Your task to perform on an android device: Search for vegetarian restaurants on Maps Image 0: 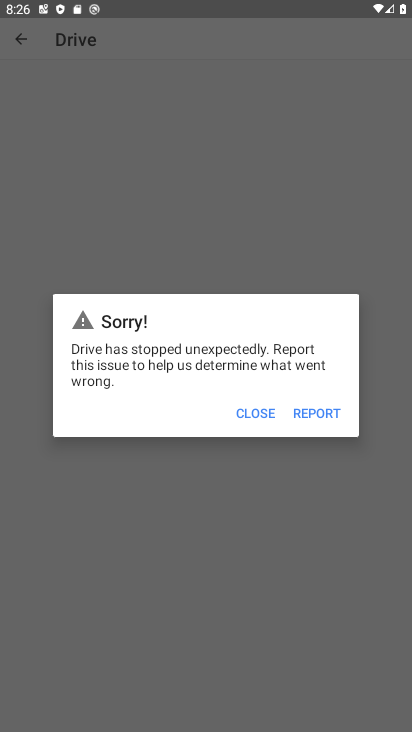
Step 0: press home button
Your task to perform on an android device: Search for vegetarian restaurants on Maps Image 1: 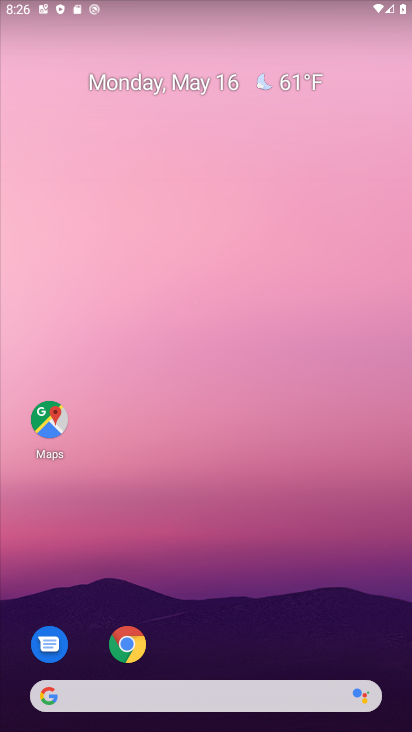
Step 1: click (49, 418)
Your task to perform on an android device: Search for vegetarian restaurants on Maps Image 2: 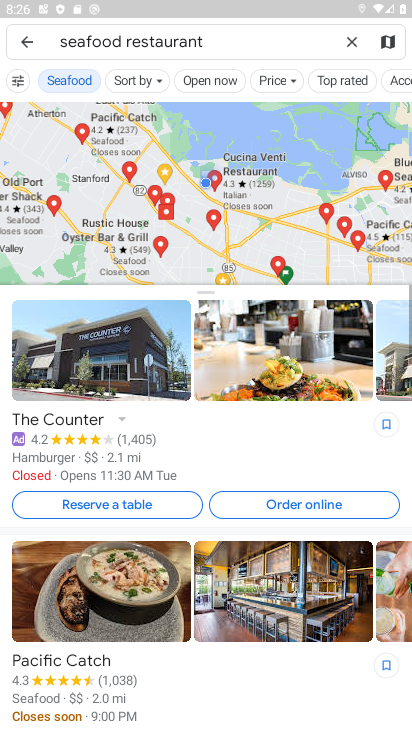
Step 2: click (349, 44)
Your task to perform on an android device: Search for vegetarian restaurants on Maps Image 3: 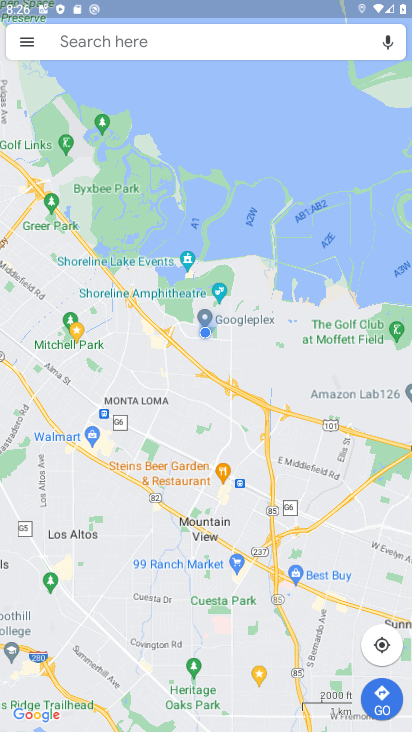
Step 3: click (196, 39)
Your task to perform on an android device: Search for vegetarian restaurants on Maps Image 4: 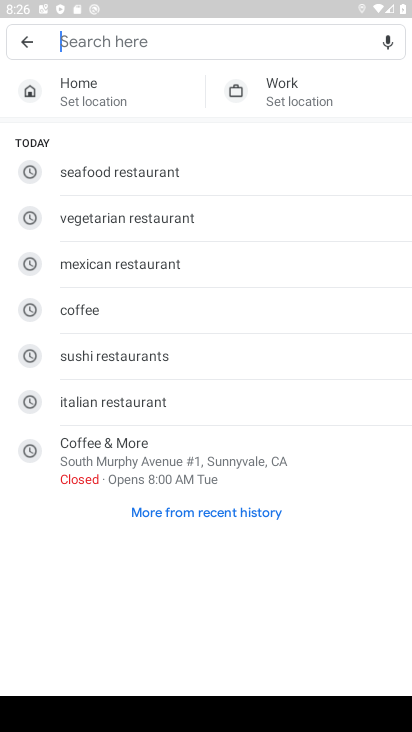
Step 4: click (142, 221)
Your task to perform on an android device: Search for vegetarian restaurants on Maps Image 5: 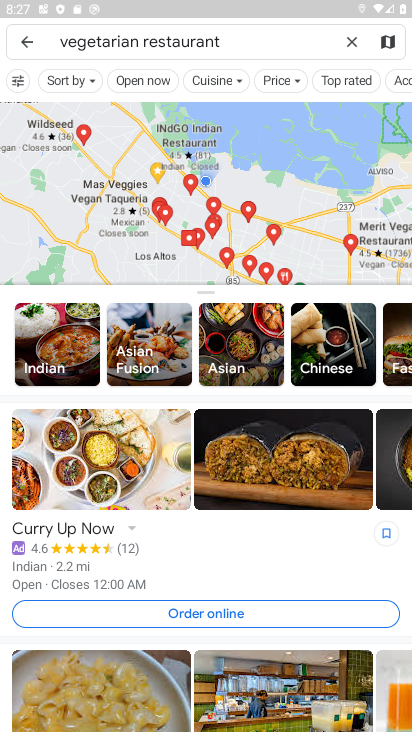
Step 5: task complete